Your task to perform on an android device: Go to display settings Image 0: 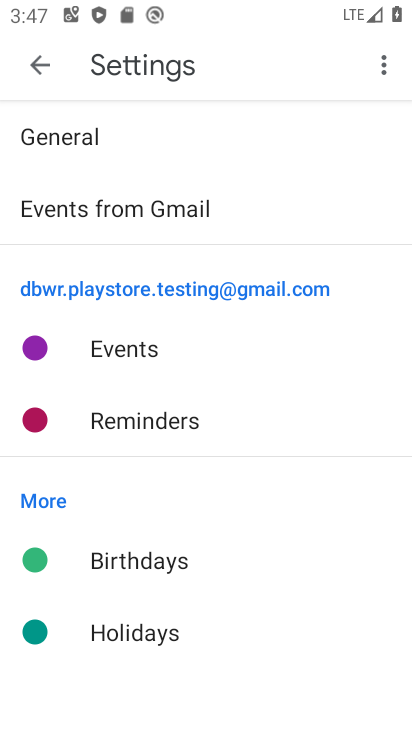
Step 0: press home button
Your task to perform on an android device: Go to display settings Image 1: 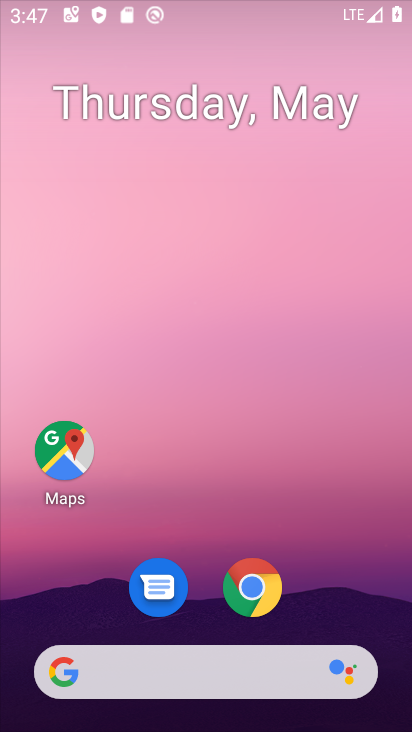
Step 1: drag from (242, 592) to (194, 6)
Your task to perform on an android device: Go to display settings Image 2: 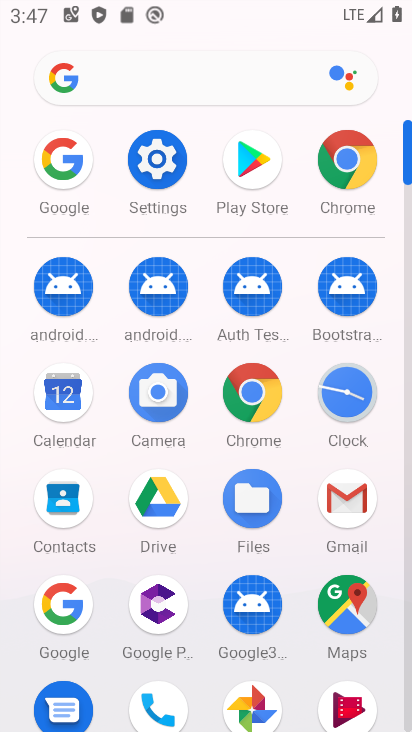
Step 2: click (179, 161)
Your task to perform on an android device: Go to display settings Image 3: 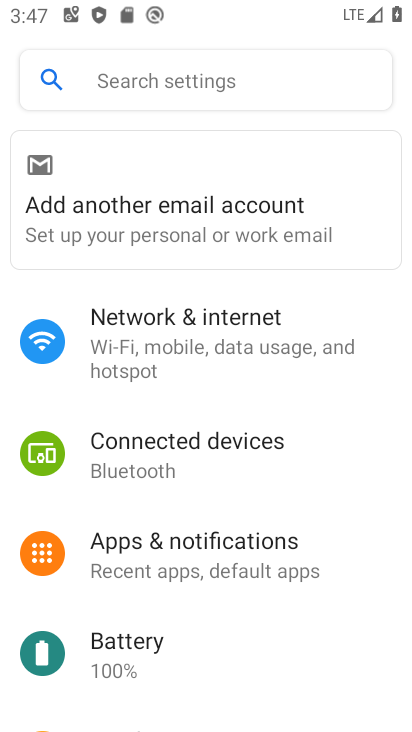
Step 3: drag from (269, 547) to (265, 329)
Your task to perform on an android device: Go to display settings Image 4: 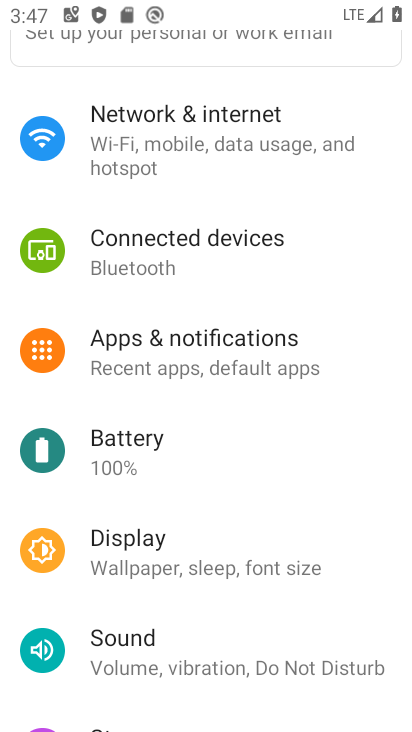
Step 4: click (280, 562)
Your task to perform on an android device: Go to display settings Image 5: 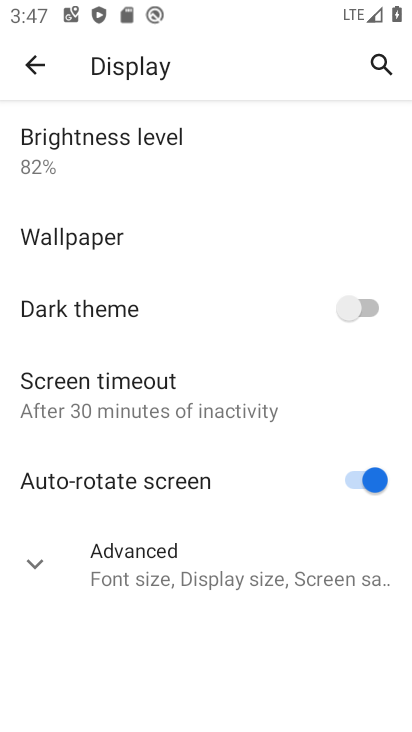
Step 5: task complete